Your task to perform on an android device: open device folders in google photos Image 0: 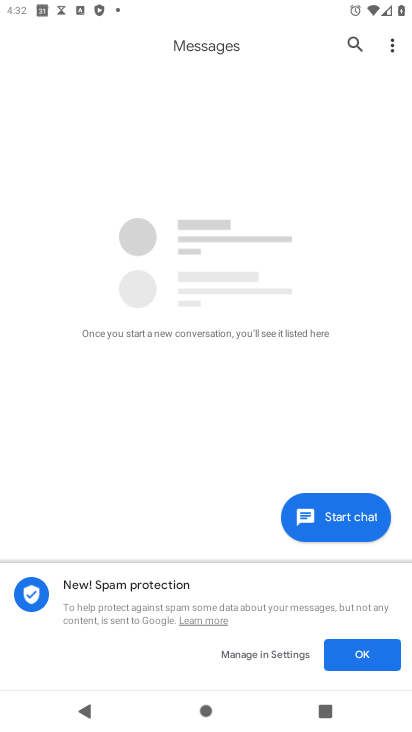
Step 0: press home button
Your task to perform on an android device: open device folders in google photos Image 1: 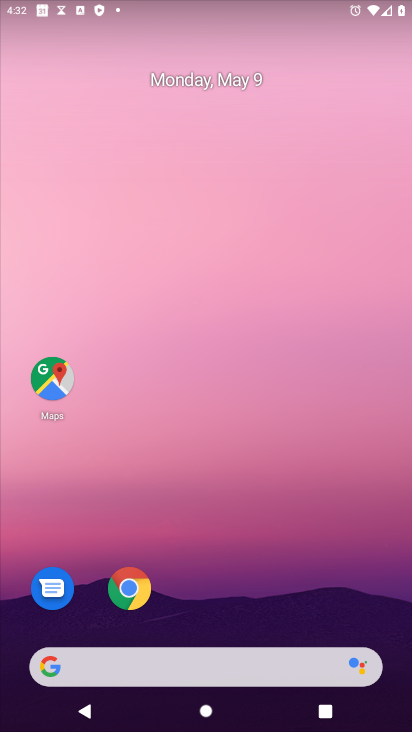
Step 1: drag from (268, 543) to (235, 25)
Your task to perform on an android device: open device folders in google photos Image 2: 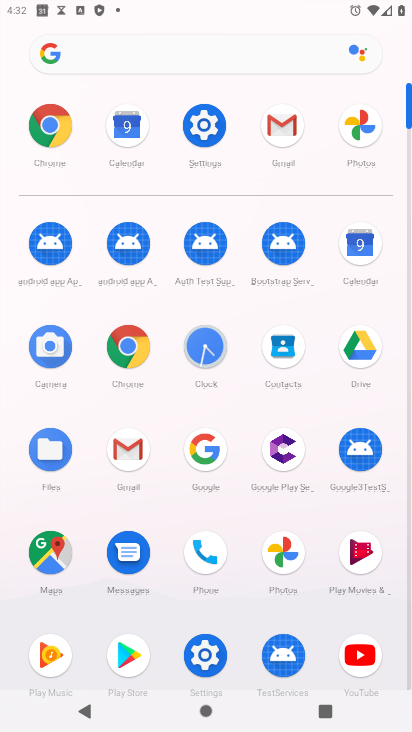
Step 2: click (284, 552)
Your task to perform on an android device: open device folders in google photos Image 3: 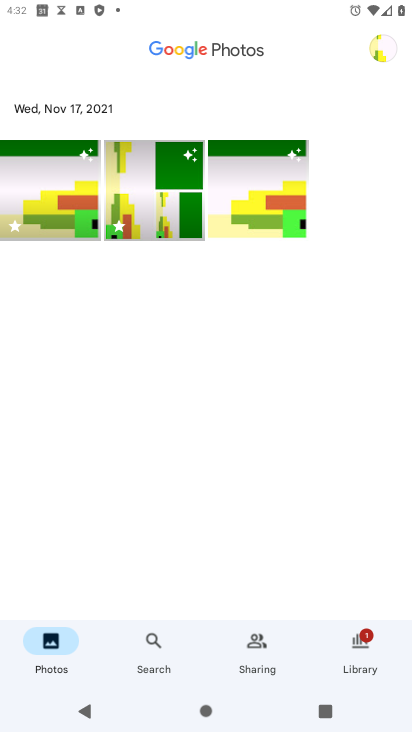
Step 3: click (145, 639)
Your task to perform on an android device: open device folders in google photos Image 4: 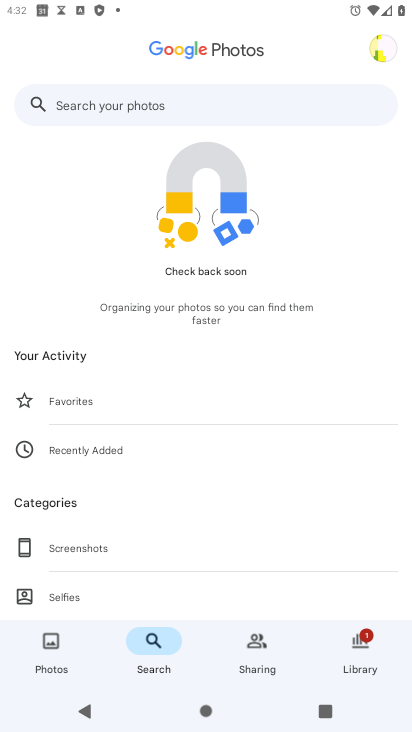
Step 4: click (146, 95)
Your task to perform on an android device: open device folders in google photos Image 5: 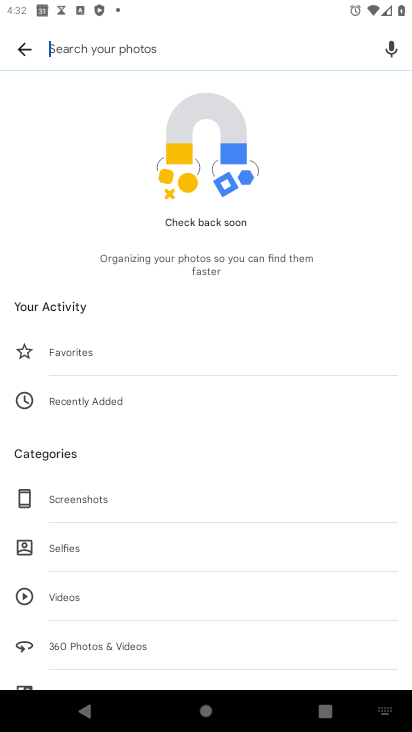
Step 5: type "device folder"
Your task to perform on an android device: open device folders in google photos Image 6: 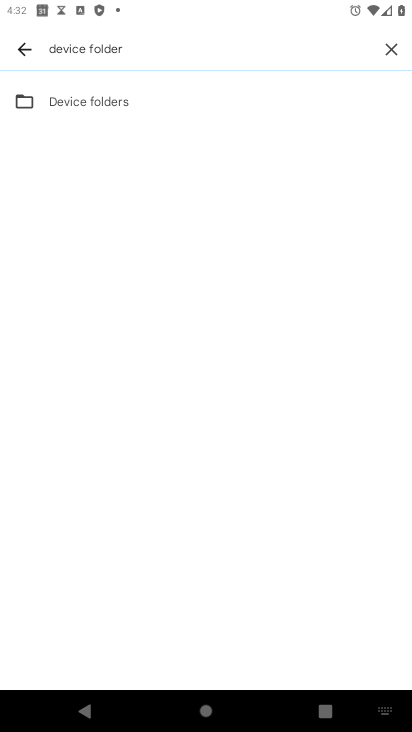
Step 6: click (215, 102)
Your task to perform on an android device: open device folders in google photos Image 7: 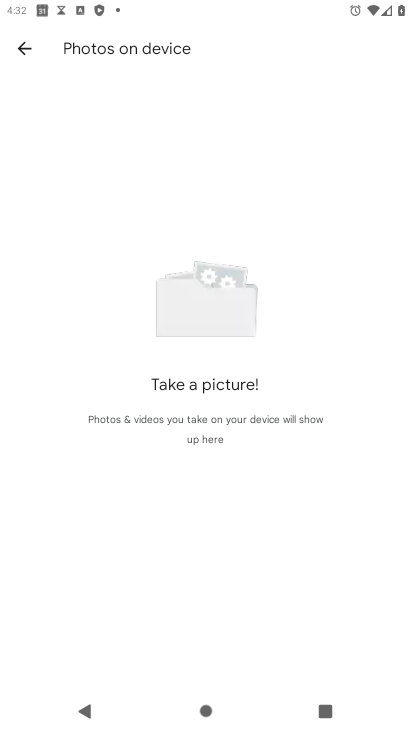
Step 7: task complete